Your task to perform on an android device: add a label to a message in the gmail app Image 0: 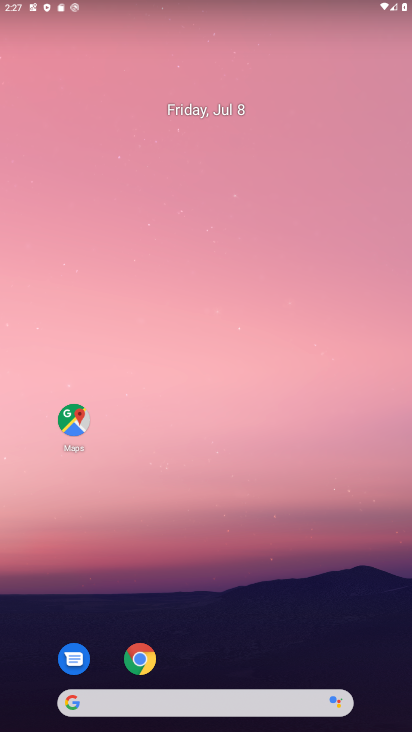
Step 0: drag from (205, 592) to (46, 6)
Your task to perform on an android device: add a label to a message in the gmail app Image 1: 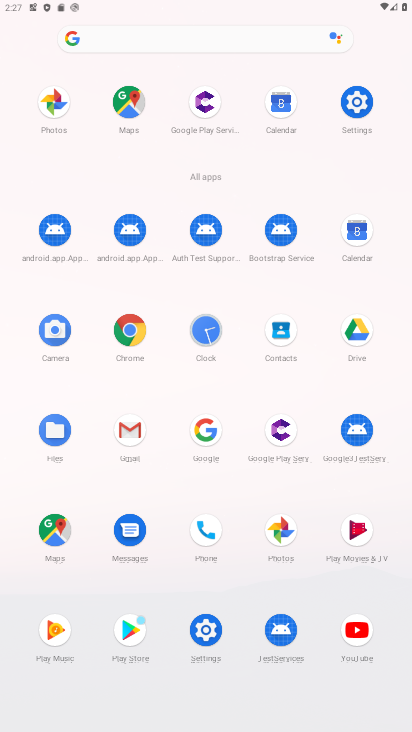
Step 1: click (128, 419)
Your task to perform on an android device: add a label to a message in the gmail app Image 2: 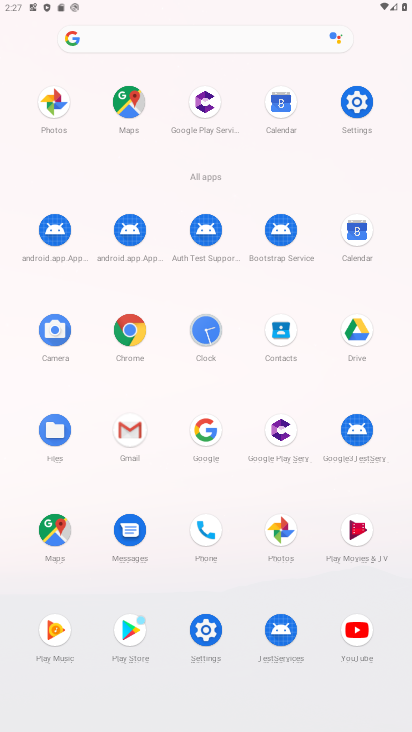
Step 2: click (128, 419)
Your task to perform on an android device: add a label to a message in the gmail app Image 3: 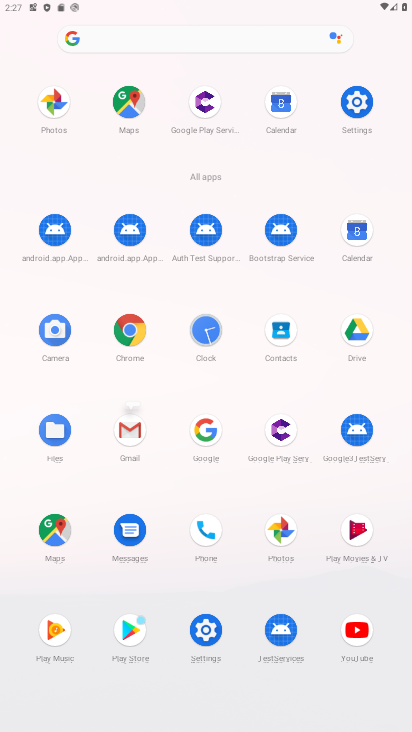
Step 3: click (127, 422)
Your task to perform on an android device: add a label to a message in the gmail app Image 4: 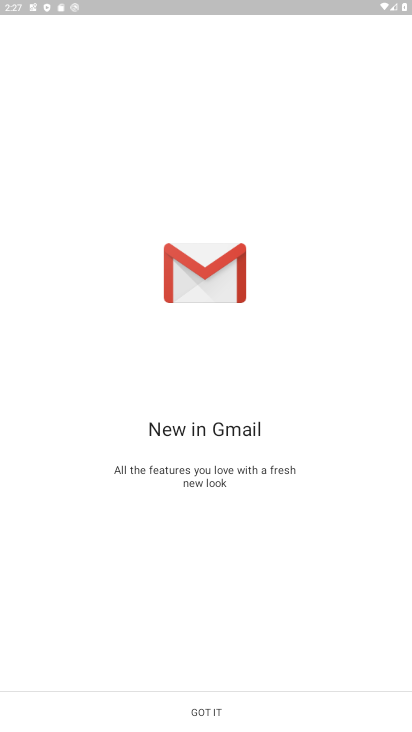
Step 4: click (247, 710)
Your task to perform on an android device: add a label to a message in the gmail app Image 5: 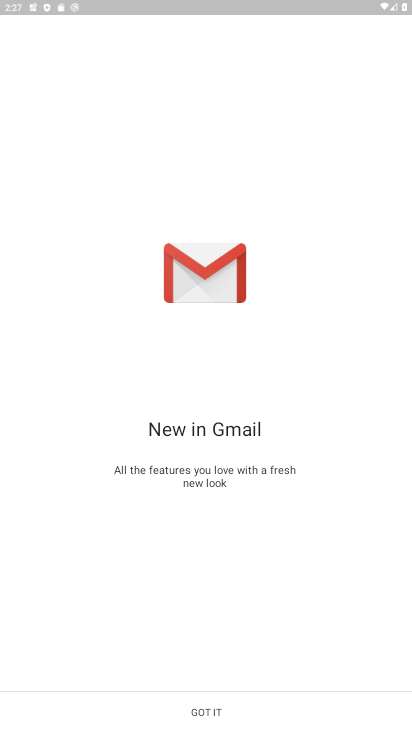
Step 5: click (250, 701)
Your task to perform on an android device: add a label to a message in the gmail app Image 6: 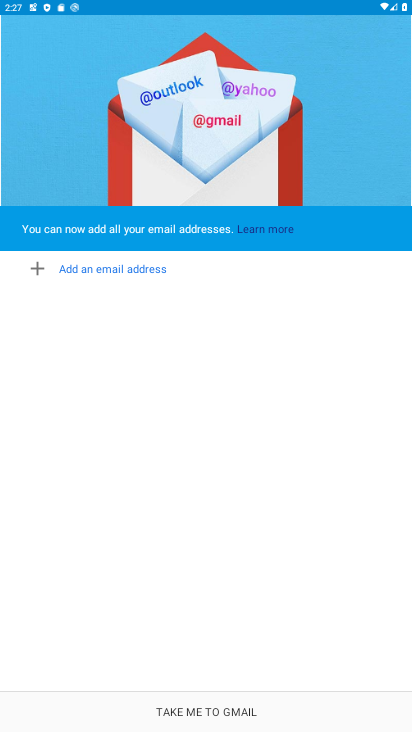
Step 6: click (250, 701)
Your task to perform on an android device: add a label to a message in the gmail app Image 7: 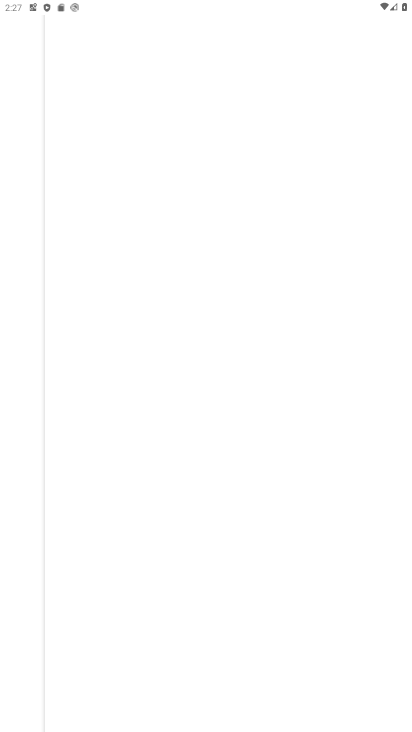
Step 7: click (252, 702)
Your task to perform on an android device: add a label to a message in the gmail app Image 8: 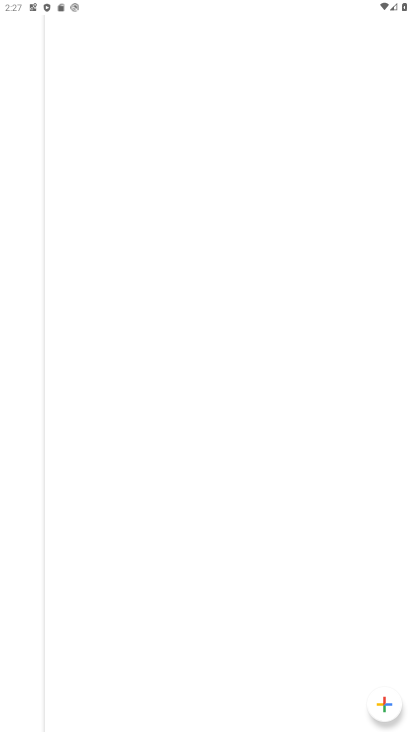
Step 8: click (253, 702)
Your task to perform on an android device: add a label to a message in the gmail app Image 9: 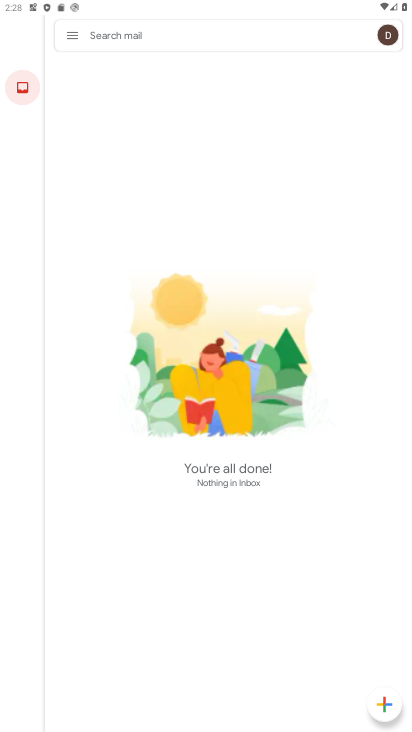
Step 9: click (17, 93)
Your task to perform on an android device: add a label to a message in the gmail app Image 10: 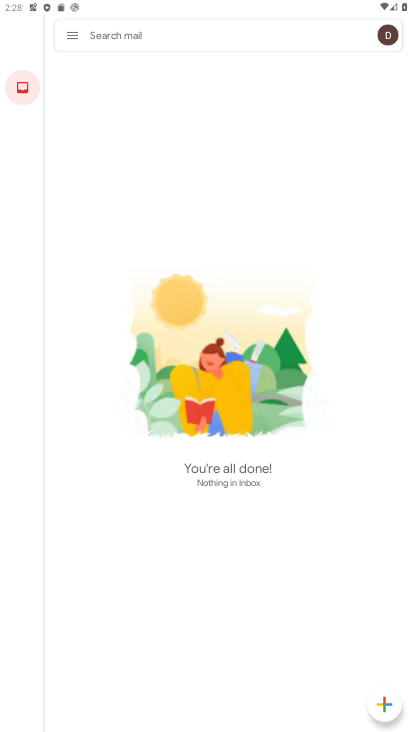
Step 10: click (17, 93)
Your task to perform on an android device: add a label to a message in the gmail app Image 11: 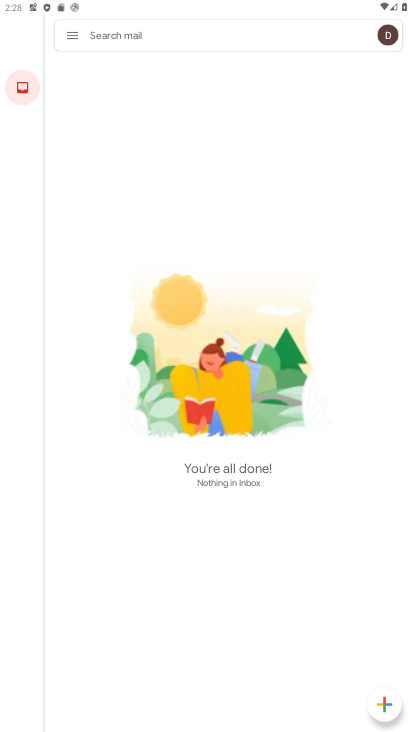
Step 11: click (18, 94)
Your task to perform on an android device: add a label to a message in the gmail app Image 12: 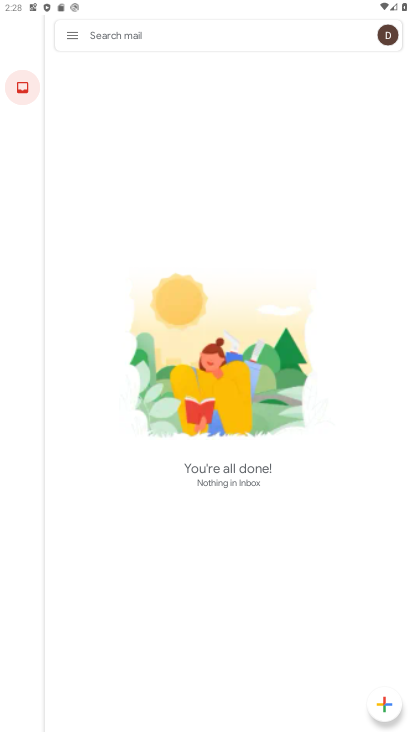
Step 12: click (18, 94)
Your task to perform on an android device: add a label to a message in the gmail app Image 13: 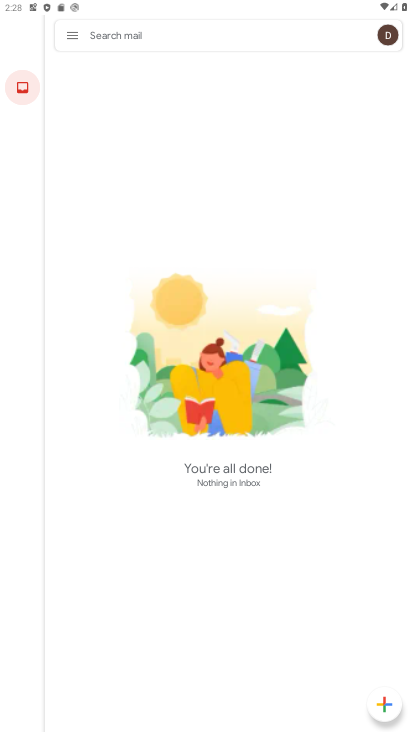
Step 13: click (71, 42)
Your task to perform on an android device: add a label to a message in the gmail app Image 14: 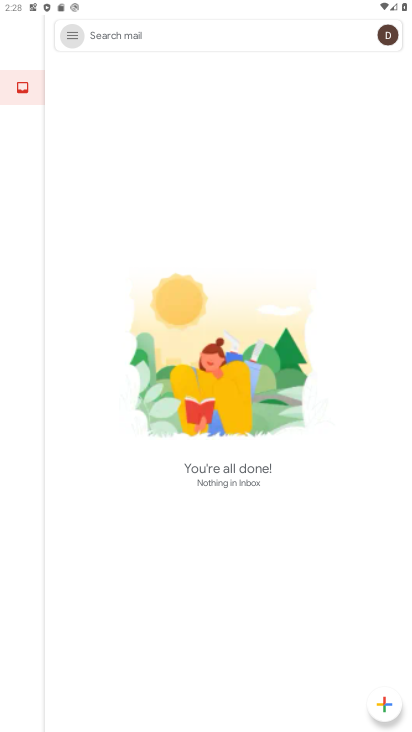
Step 14: click (71, 42)
Your task to perform on an android device: add a label to a message in the gmail app Image 15: 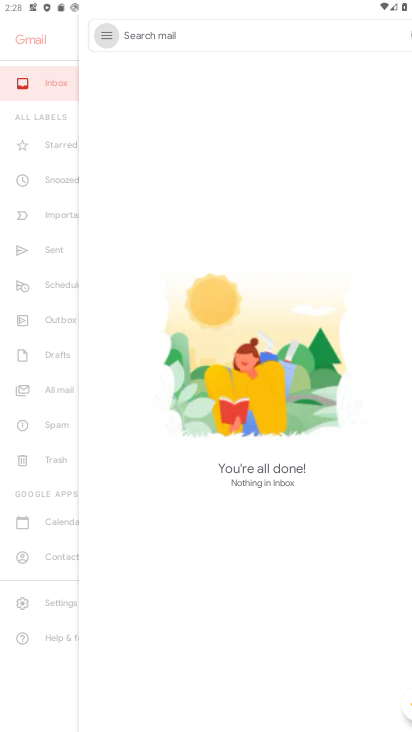
Step 15: click (73, 42)
Your task to perform on an android device: add a label to a message in the gmail app Image 16: 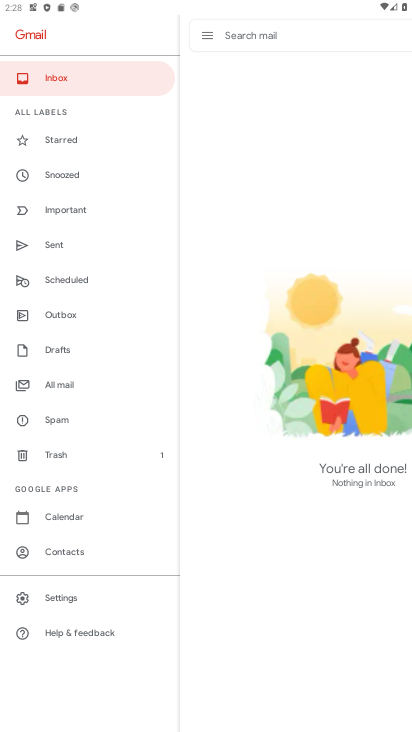
Step 16: click (61, 389)
Your task to perform on an android device: add a label to a message in the gmail app Image 17: 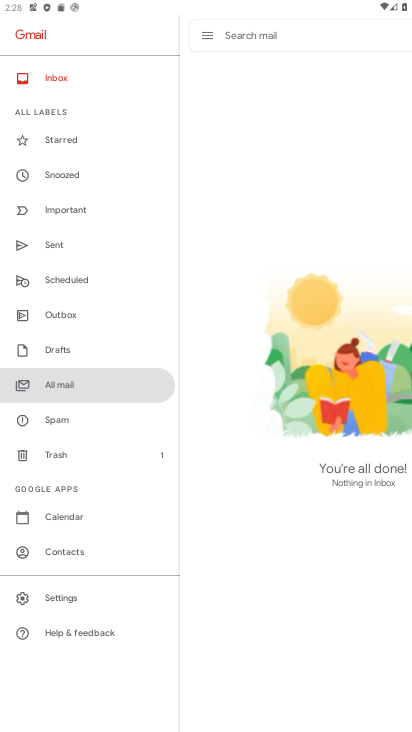
Step 17: click (62, 384)
Your task to perform on an android device: add a label to a message in the gmail app Image 18: 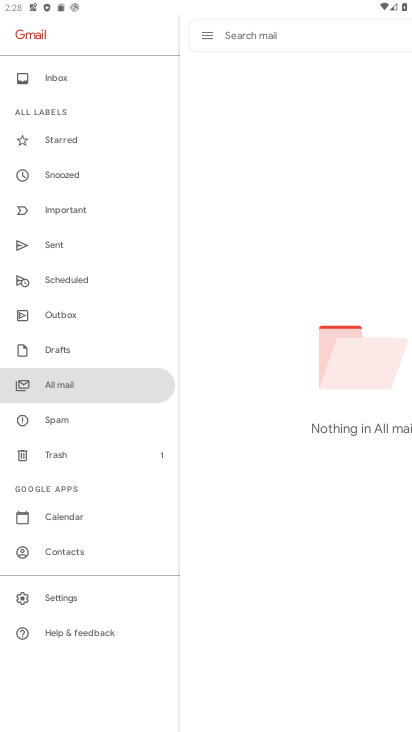
Step 18: task complete